Your task to perform on an android device: change notification settings in the gmail app Image 0: 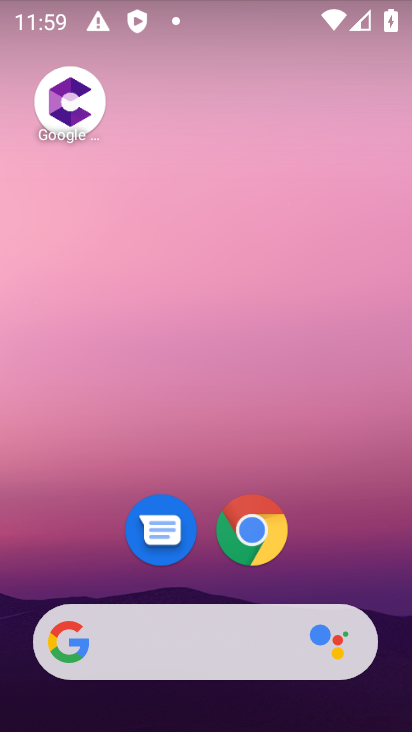
Step 0: drag from (55, 424) to (35, 19)
Your task to perform on an android device: change notification settings in the gmail app Image 1: 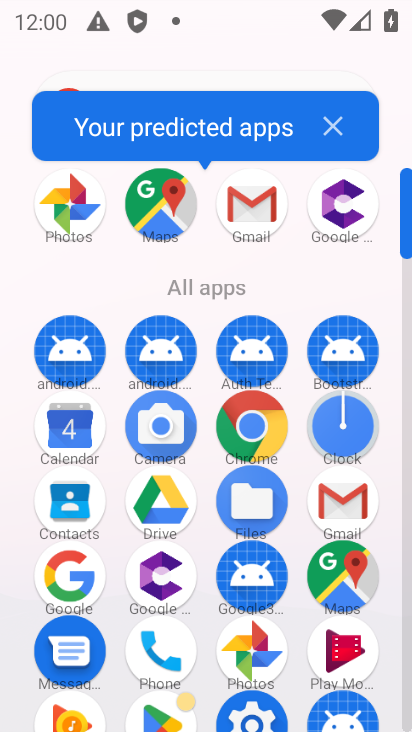
Step 1: click (328, 128)
Your task to perform on an android device: change notification settings in the gmail app Image 2: 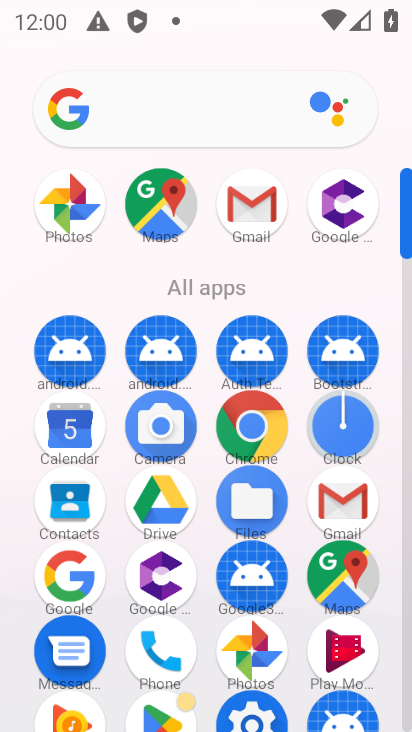
Step 2: click (260, 712)
Your task to perform on an android device: change notification settings in the gmail app Image 3: 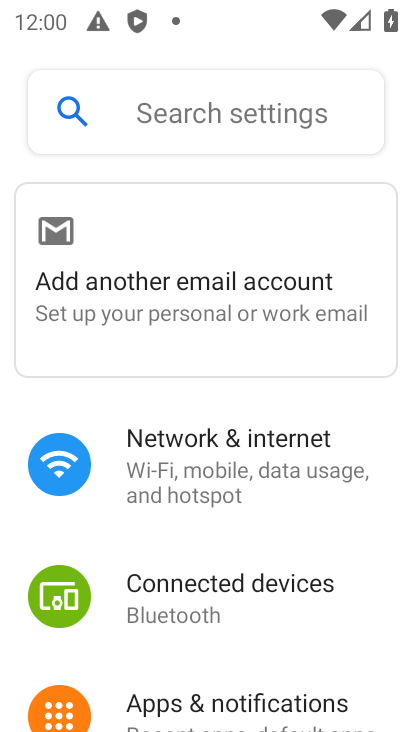
Step 3: click (256, 708)
Your task to perform on an android device: change notification settings in the gmail app Image 4: 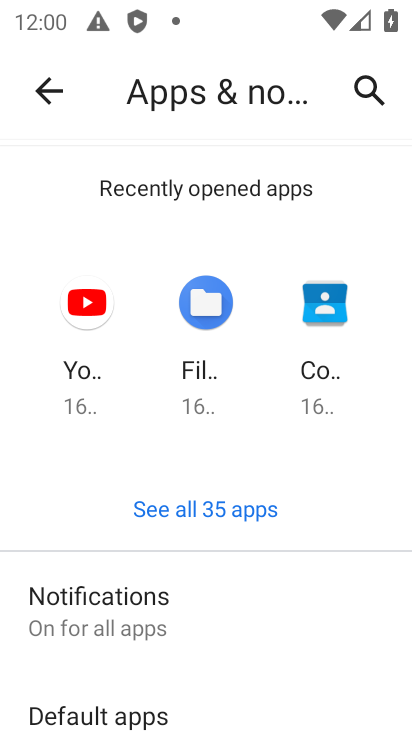
Step 4: click (142, 625)
Your task to perform on an android device: change notification settings in the gmail app Image 5: 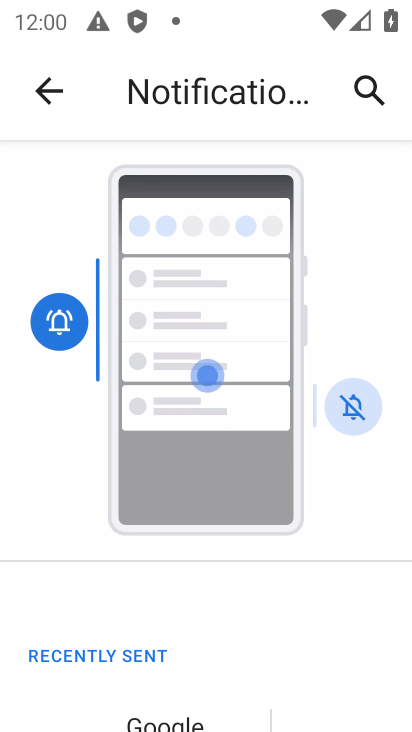
Step 5: task complete